Your task to perform on an android device: open chrome privacy settings Image 0: 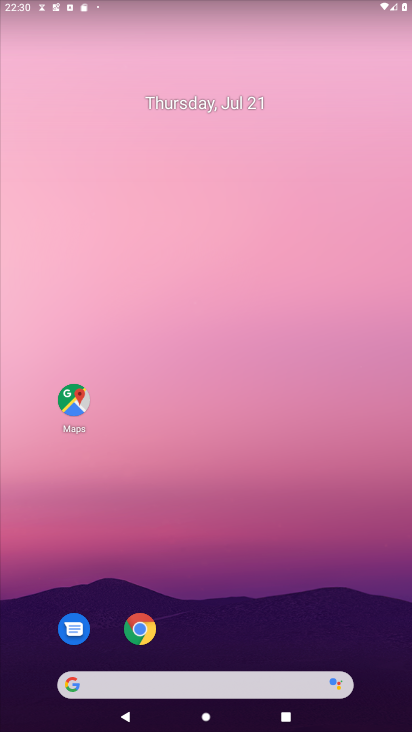
Step 0: drag from (291, 558) to (276, 0)
Your task to perform on an android device: open chrome privacy settings Image 1: 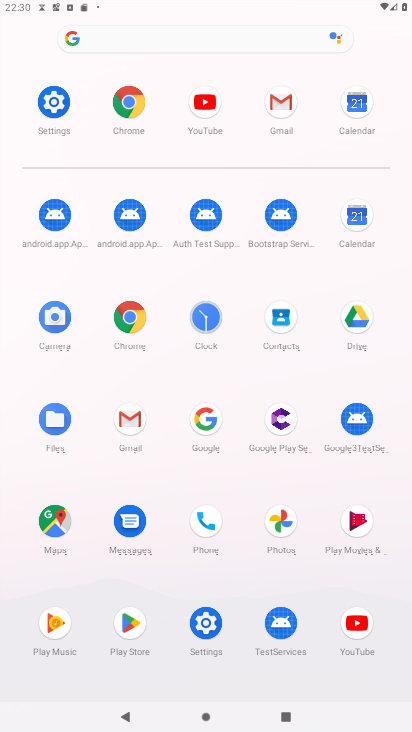
Step 1: click (134, 317)
Your task to perform on an android device: open chrome privacy settings Image 2: 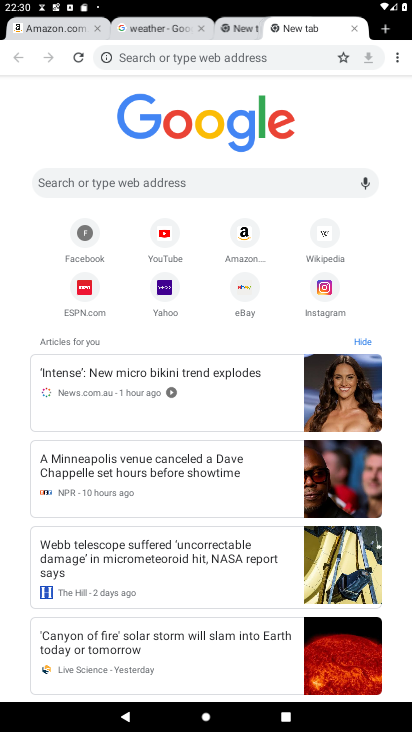
Step 2: click (395, 62)
Your task to perform on an android device: open chrome privacy settings Image 3: 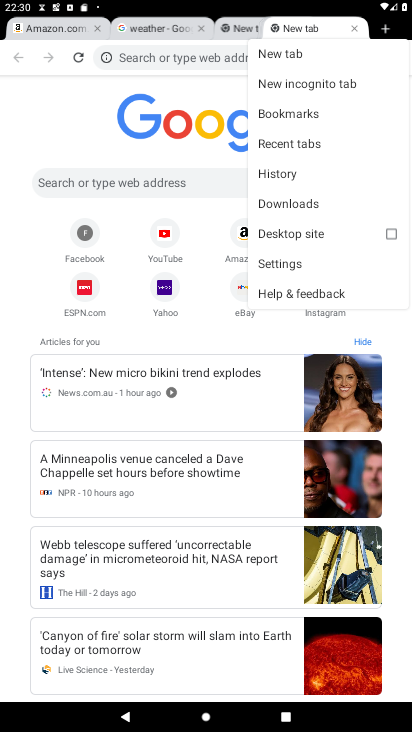
Step 3: click (291, 265)
Your task to perform on an android device: open chrome privacy settings Image 4: 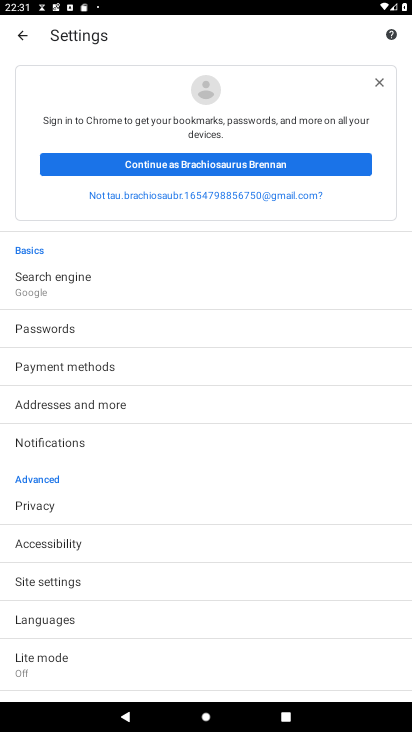
Step 4: click (61, 512)
Your task to perform on an android device: open chrome privacy settings Image 5: 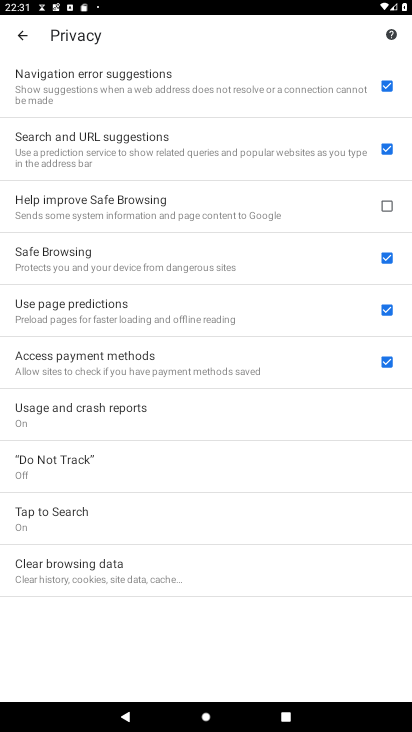
Step 5: click (76, 532)
Your task to perform on an android device: open chrome privacy settings Image 6: 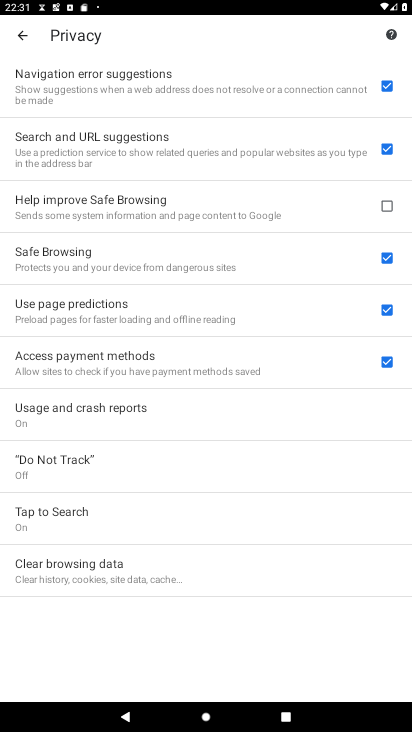
Step 6: task complete